Your task to perform on an android device: Search for a coffee table on Crate & Barrel Image 0: 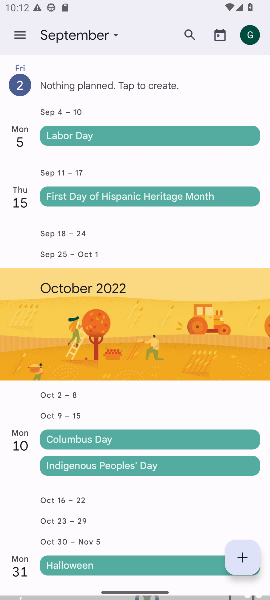
Step 0: press home button
Your task to perform on an android device: Search for a coffee table on Crate & Barrel Image 1: 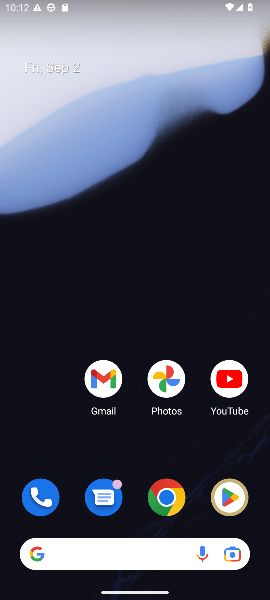
Step 1: click (172, 507)
Your task to perform on an android device: Search for a coffee table on Crate & Barrel Image 2: 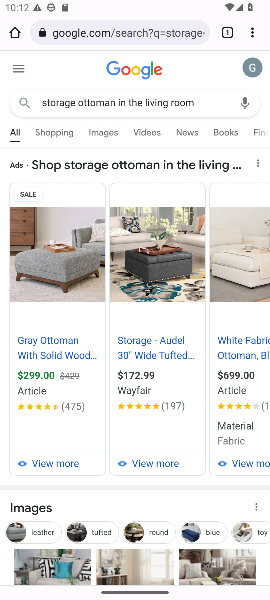
Step 2: click (141, 31)
Your task to perform on an android device: Search for a coffee table on Crate & Barrel Image 3: 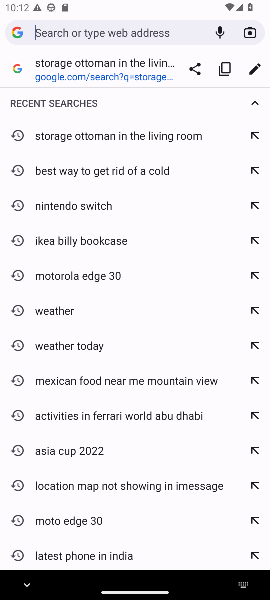
Step 3: type "Crate & Barrel"
Your task to perform on an android device: Search for a coffee table on Crate & Barrel Image 4: 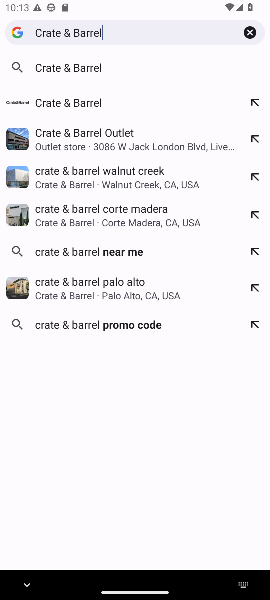
Step 4: click (89, 69)
Your task to perform on an android device: Search for a coffee table on Crate & Barrel Image 5: 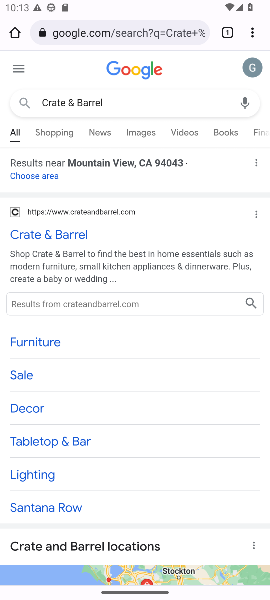
Step 5: click (60, 237)
Your task to perform on an android device: Search for a coffee table on Crate & Barrel Image 6: 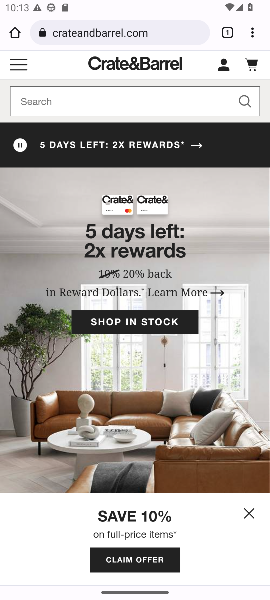
Step 6: click (132, 108)
Your task to perform on an android device: Search for a coffee table on Crate & Barrel Image 7: 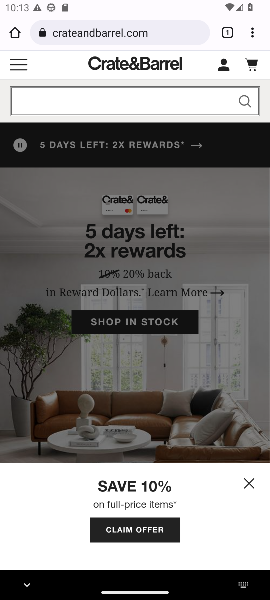
Step 7: type "coffee table"
Your task to perform on an android device: Search for a coffee table on Crate & Barrel Image 8: 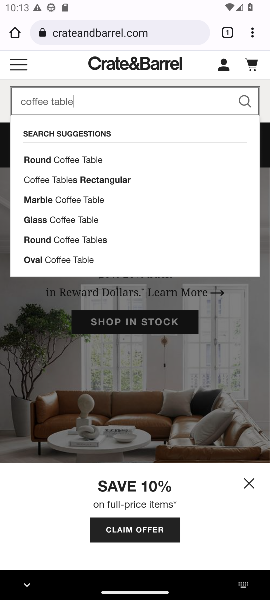
Step 8: press enter
Your task to perform on an android device: Search for a coffee table on Crate & Barrel Image 9: 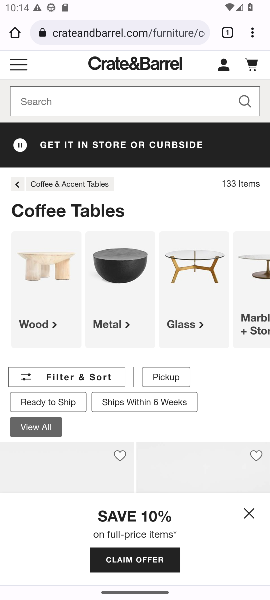
Step 9: task complete